Your task to perform on an android device: open app "Roku - Official Remote Control" Image 0: 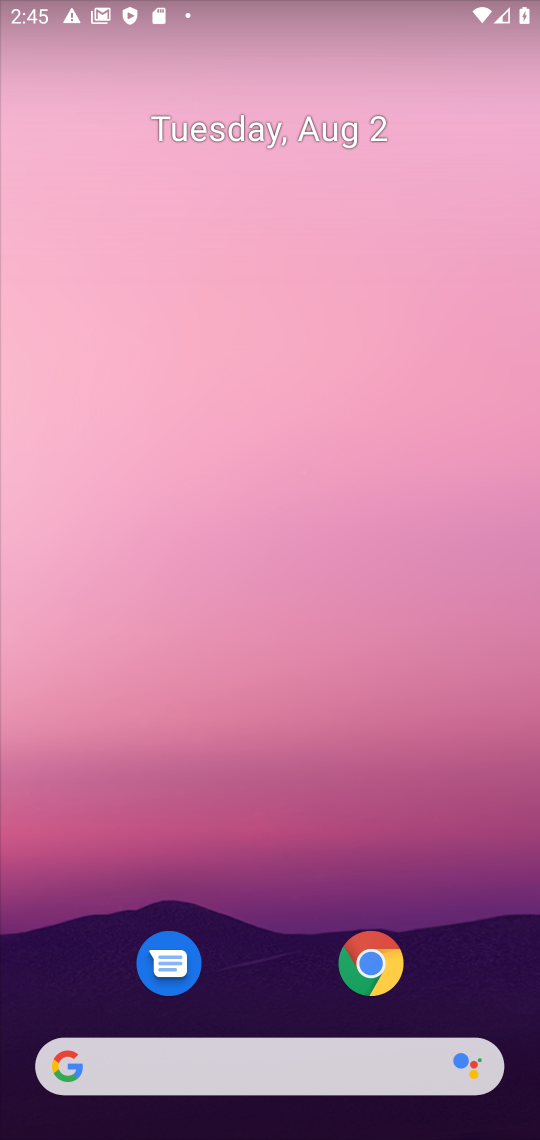
Step 0: drag from (228, 1051) to (436, 30)
Your task to perform on an android device: open app "Roku - Official Remote Control" Image 1: 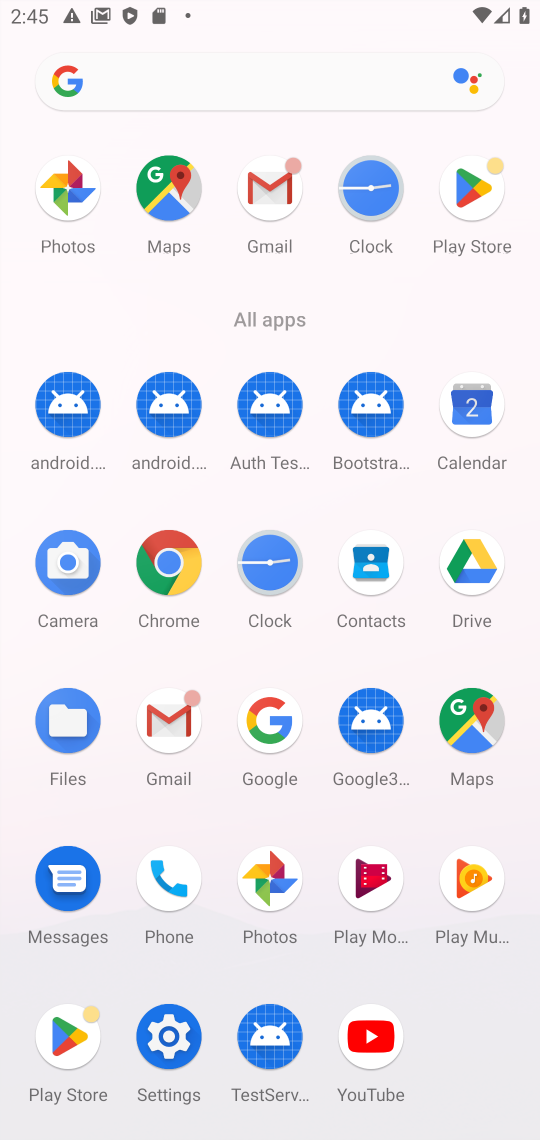
Step 1: click (453, 185)
Your task to perform on an android device: open app "Roku - Official Remote Control" Image 2: 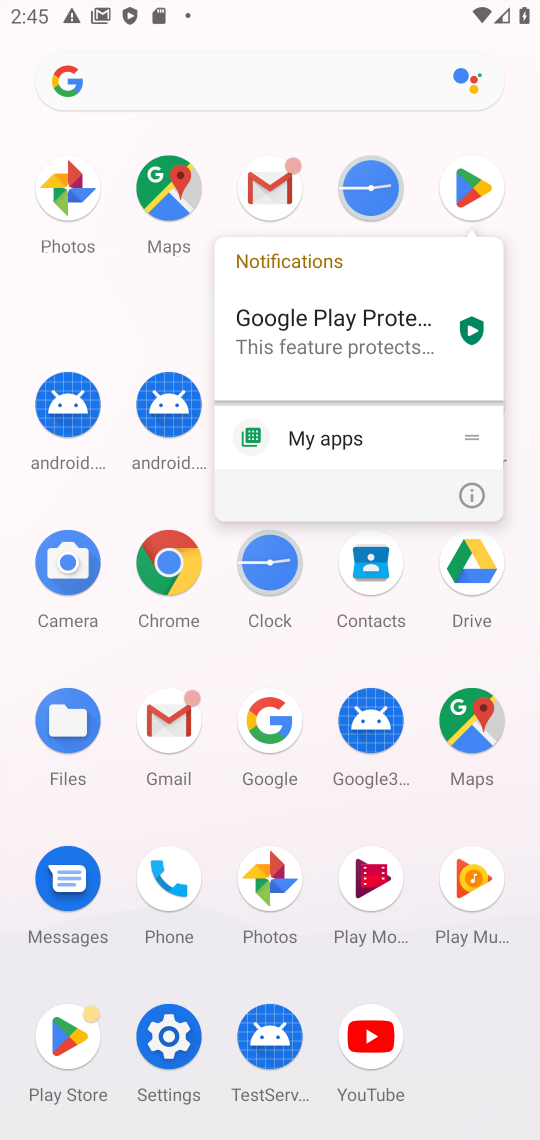
Step 2: click (473, 188)
Your task to perform on an android device: open app "Roku - Official Remote Control" Image 3: 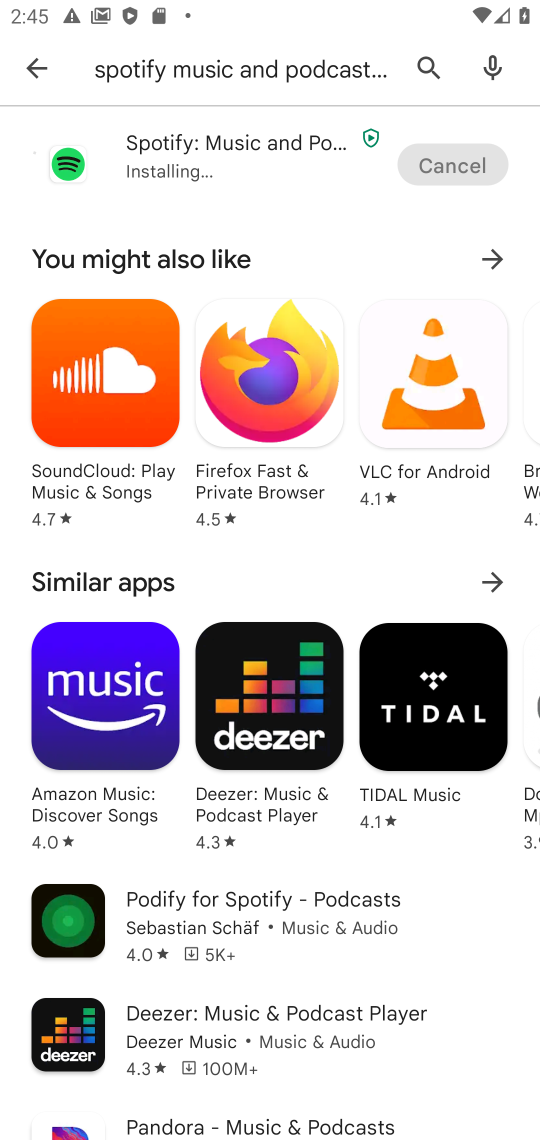
Step 3: click (427, 68)
Your task to perform on an android device: open app "Roku - Official Remote Control" Image 4: 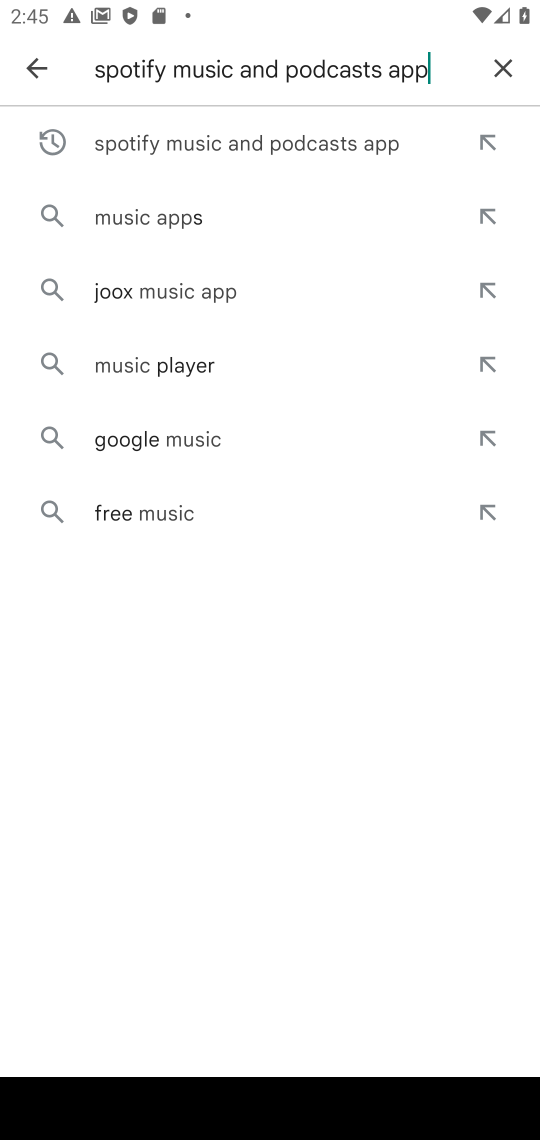
Step 4: click (505, 70)
Your task to perform on an android device: open app "Roku - Official Remote Control" Image 5: 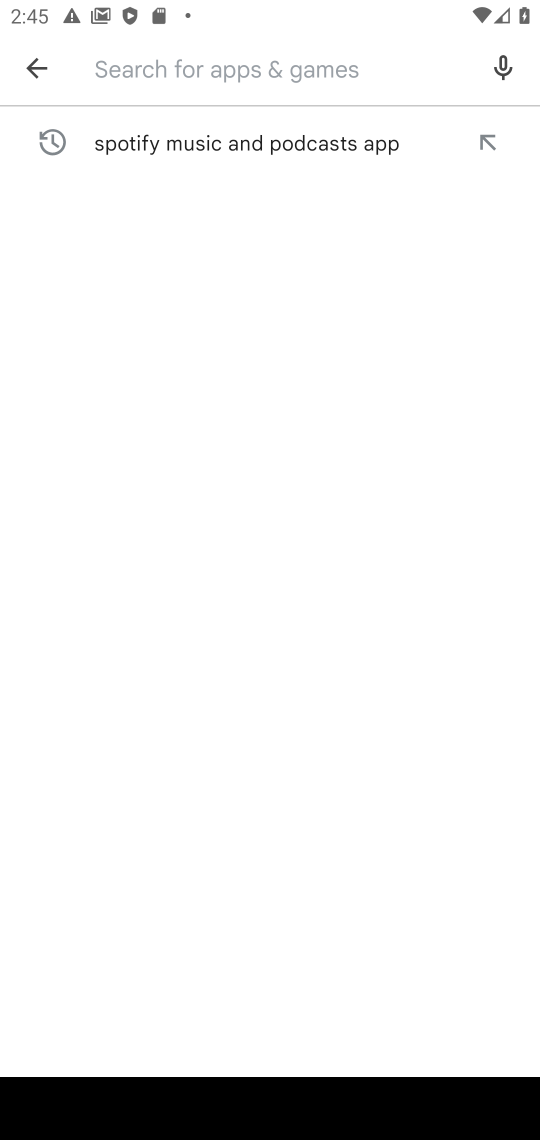
Step 5: type "Roku - Official Remote Control"
Your task to perform on an android device: open app "Roku - Official Remote Control" Image 6: 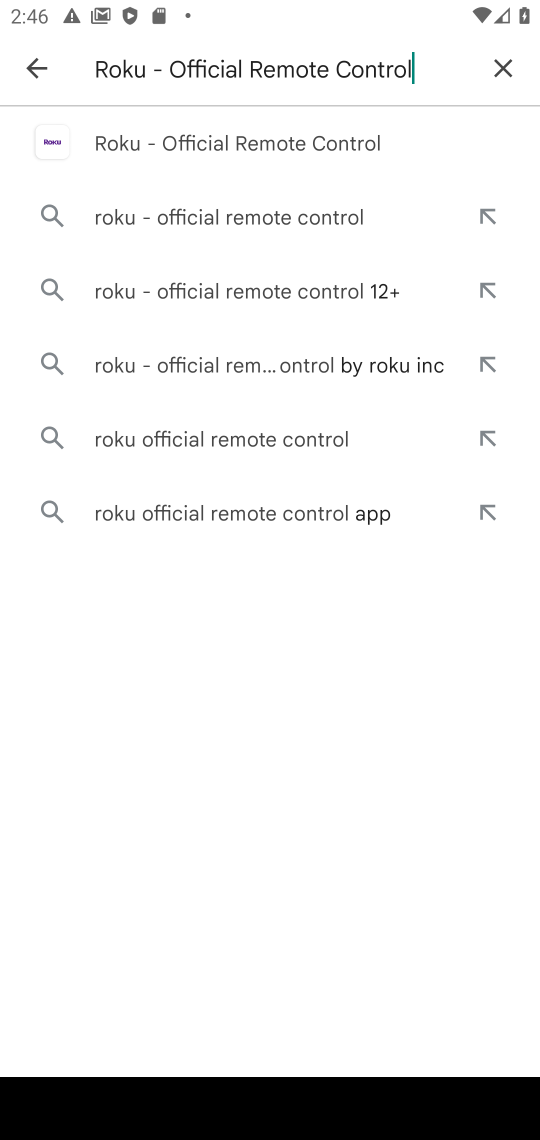
Step 6: click (170, 170)
Your task to perform on an android device: open app "Roku - Official Remote Control" Image 7: 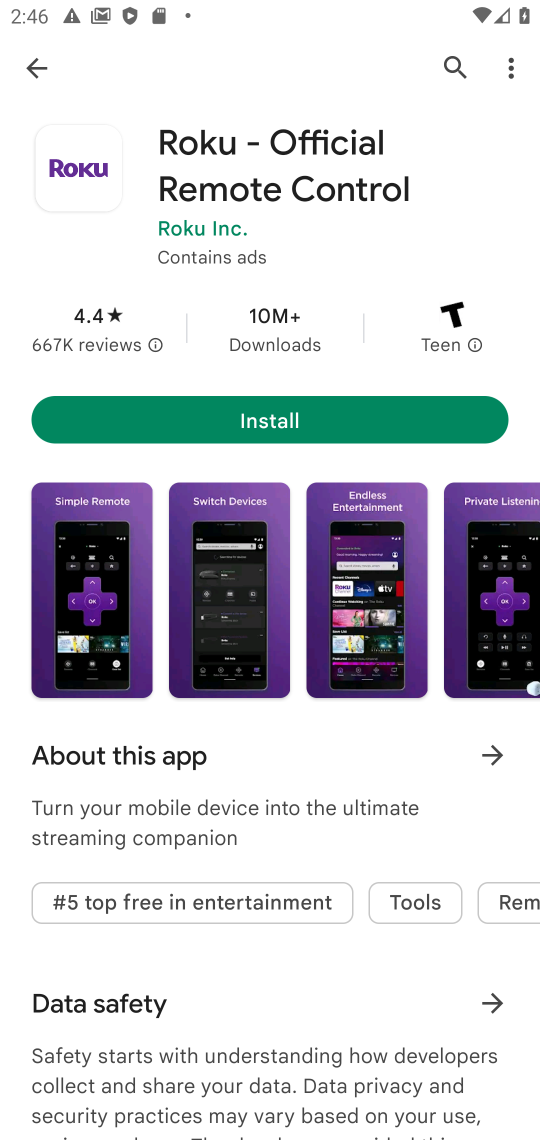
Step 7: click (244, 415)
Your task to perform on an android device: open app "Roku - Official Remote Control" Image 8: 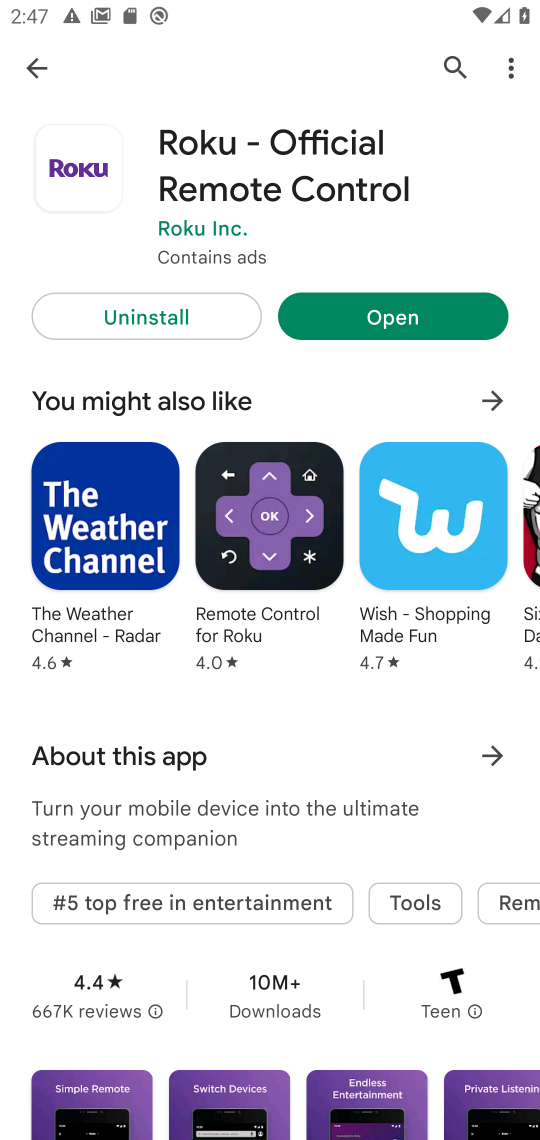
Step 8: click (408, 310)
Your task to perform on an android device: open app "Roku - Official Remote Control" Image 9: 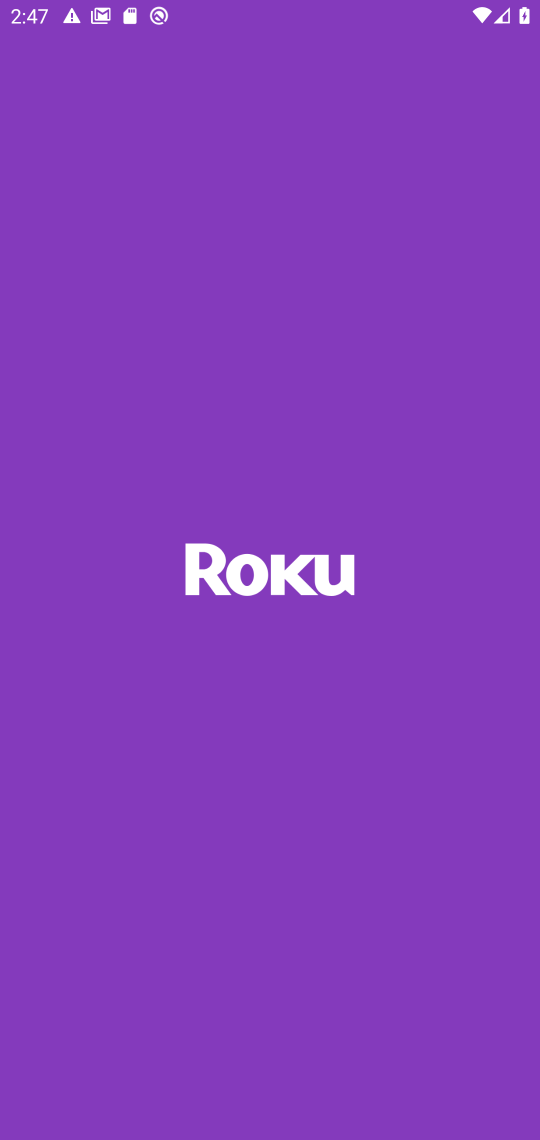
Step 9: task complete